Your task to perform on an android device: Do I have any events today? Image 0: 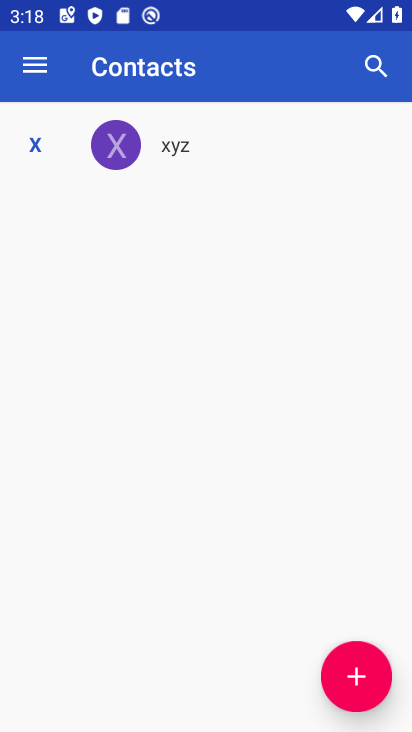
Step 0: press home button
Your task to perform on an android device: Do I have any events today? Image 1: 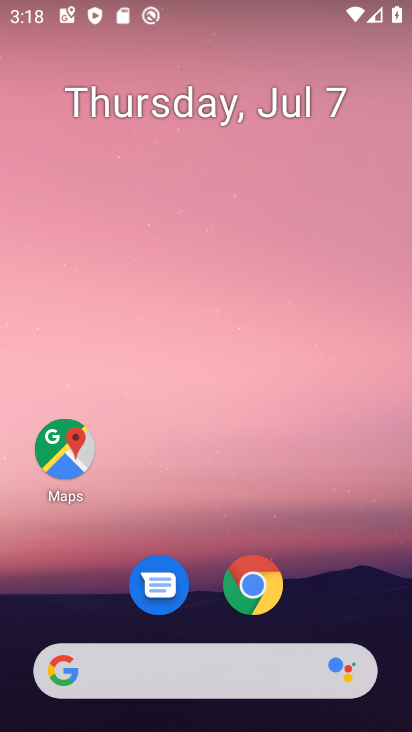
Step 1: drag from (194, 507) to (257, 1)
Your task to perform on an android device: Do I have any events today? Image 2: 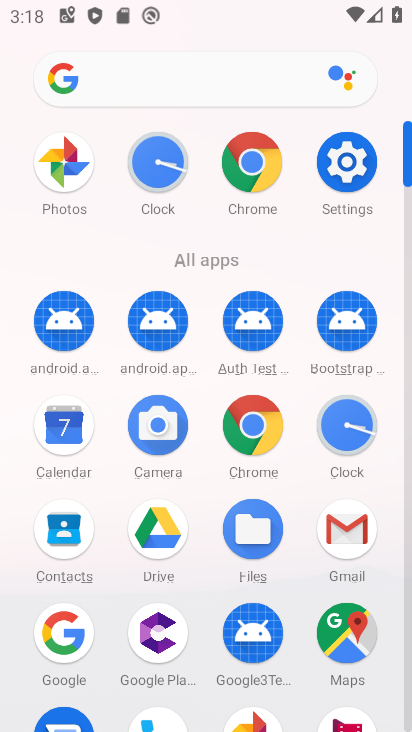
Step 2: click (64, 414)
Your task to perform on an android device: Do I have any events today? Image 3: 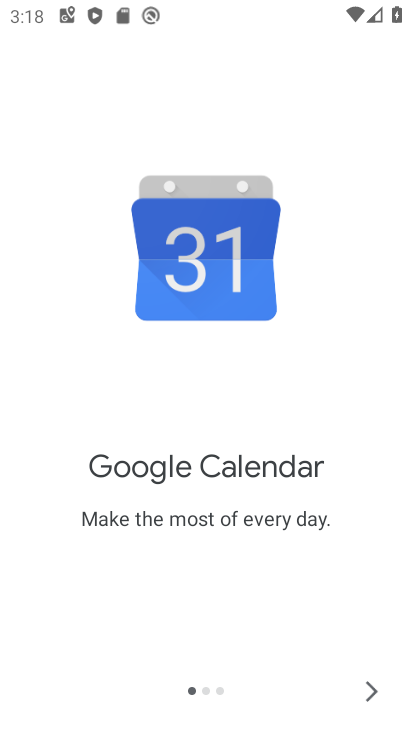
Step 3: click (370, 683)
Your task to perform on an android device: Do I have any events today? Image 4: 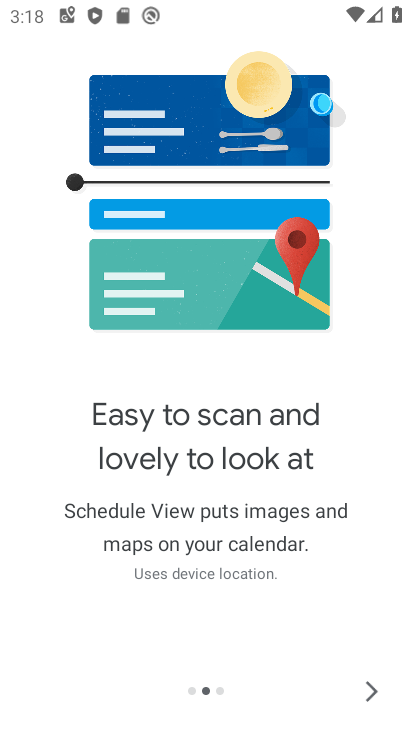
Step 4: click (370, 683)
Your task to perform on an android device: Do I have any events today? Image 5: 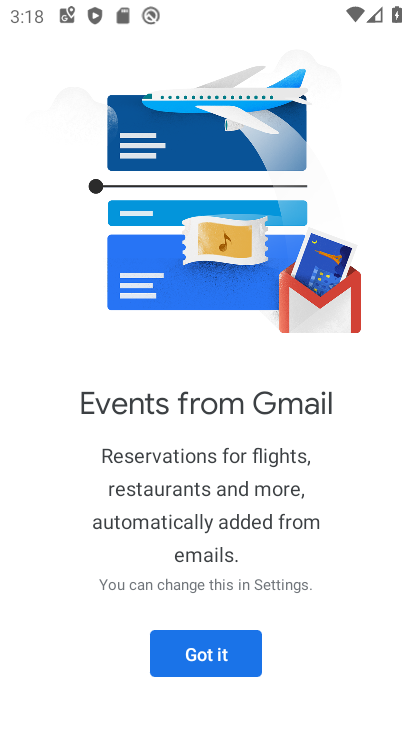
Step 5: click (251, 648)
Your task to perform on an android device: Do I have any events today? Image 6: 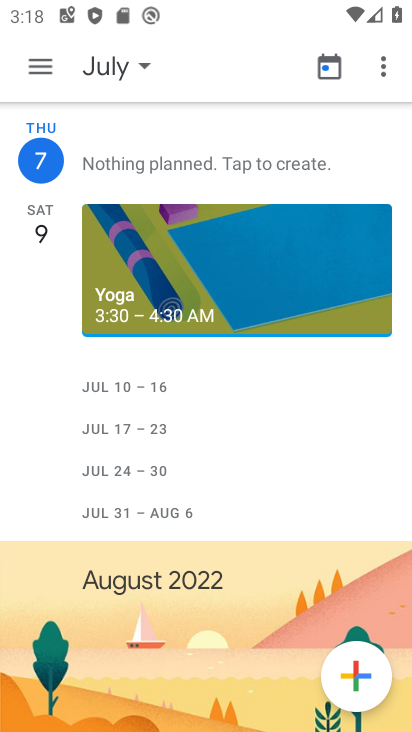
Step 6: task complete